Your task to perform on an android device: turn off location history Image 0: 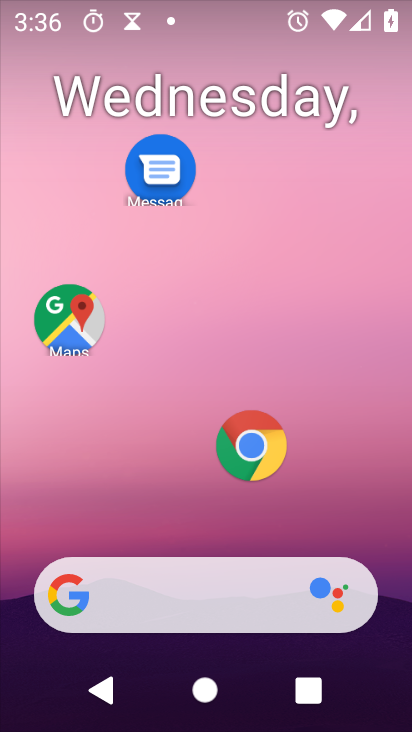
Step 0: drag from (15, 596) to (258, 93)
Your task to perform on an android device: turn off location history Image 1: 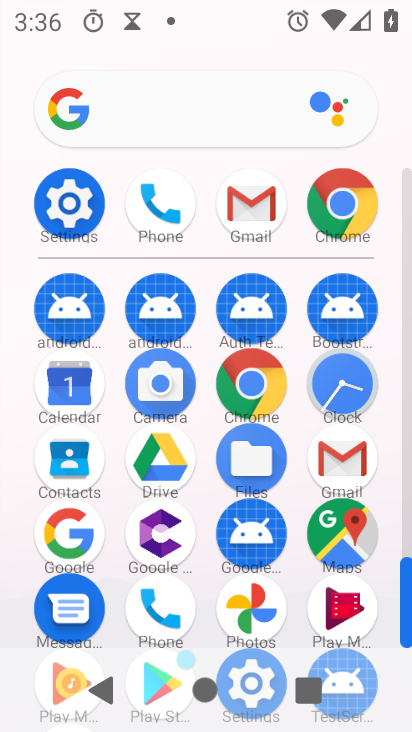
Step 1: drag from (73, 562) to (235, 216)
Your task to perform on an android device: turn off location history Image 2: 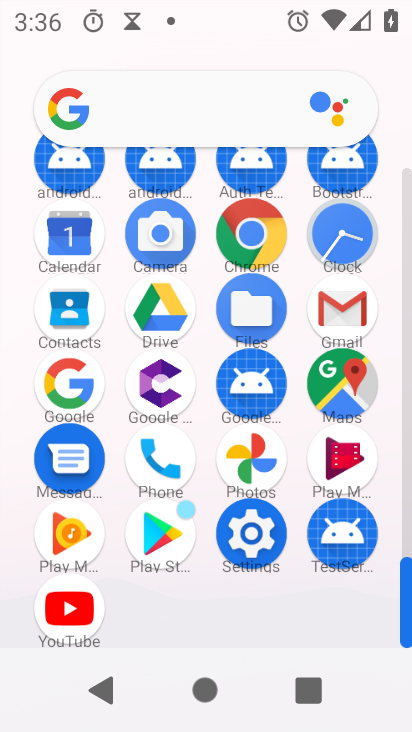
Step 2: click (256, 548)
Your task to perform on an android device: turn off location history Image 3: 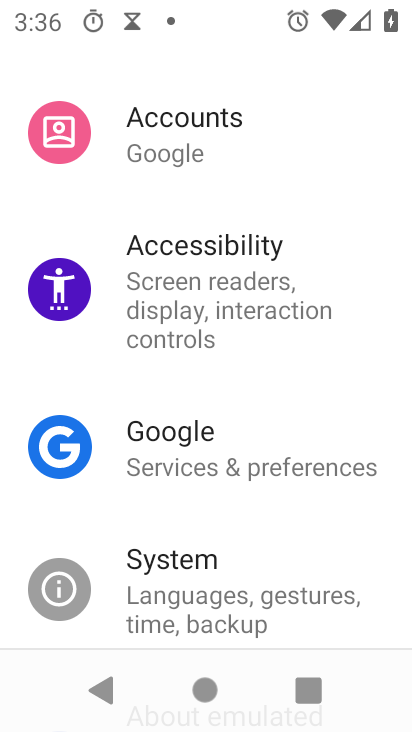
Step 3: drag from (236, 162) to (208, 490)
Your task to perform on an android device: turn off location history Image 4: 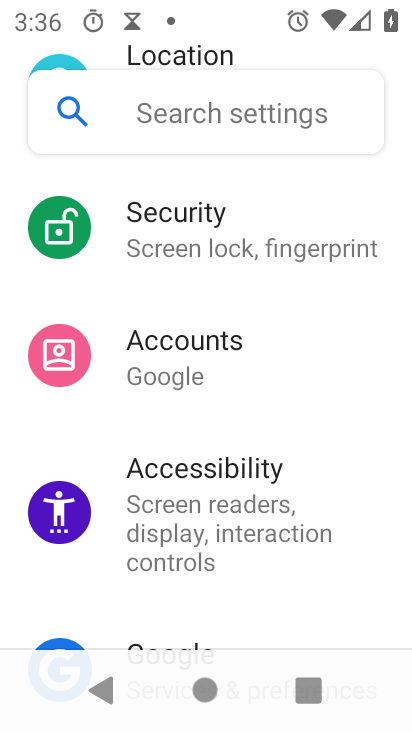
Step 4: drag from (181, 168) to (168, 452)
Your task to perform on an android device: turn off location history Image 5: 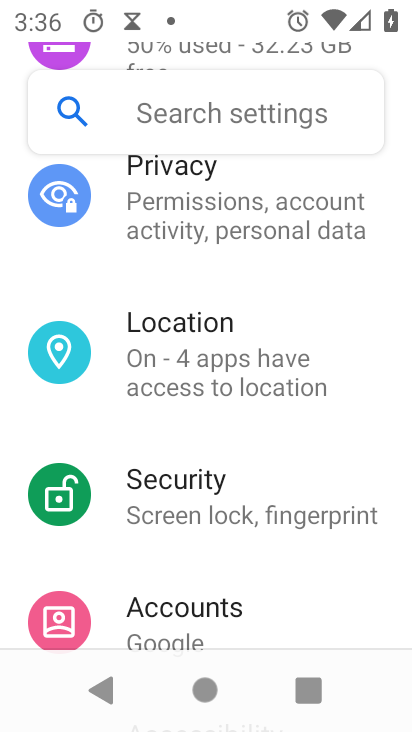
Step 5: click (156, 352)
Your task to perform on an android device: turn off location history Image 6: 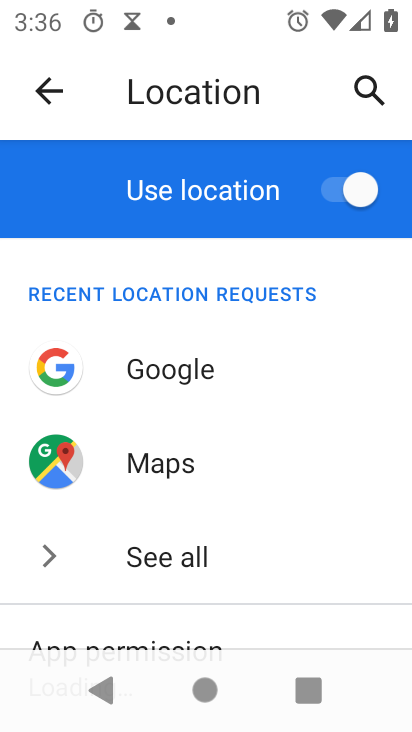
Step 6: drag from (19, 534) to (258, 85)
Your task to perform on an android device: turn off location history Image 7: 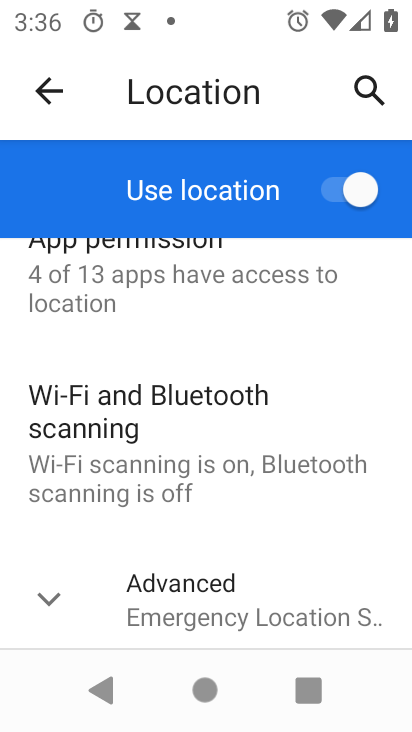
Step 7: click (184, 600)
Your task to perform on an android device: turn off location history Image 8: 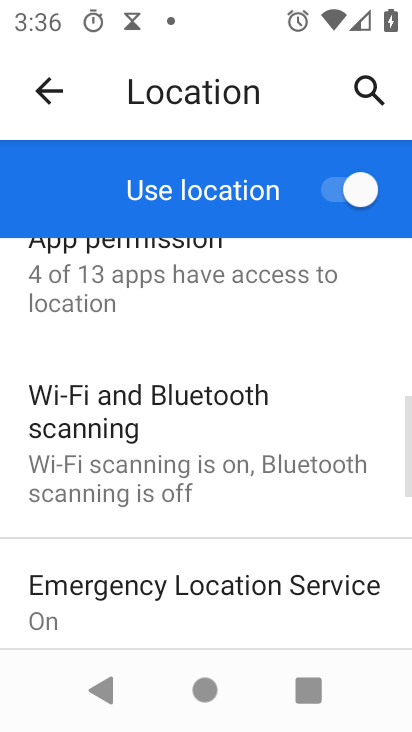
Step 8: drag from (21, 451) to (220, 56)
Your task to perform on an android device: turn off location history Image 9: 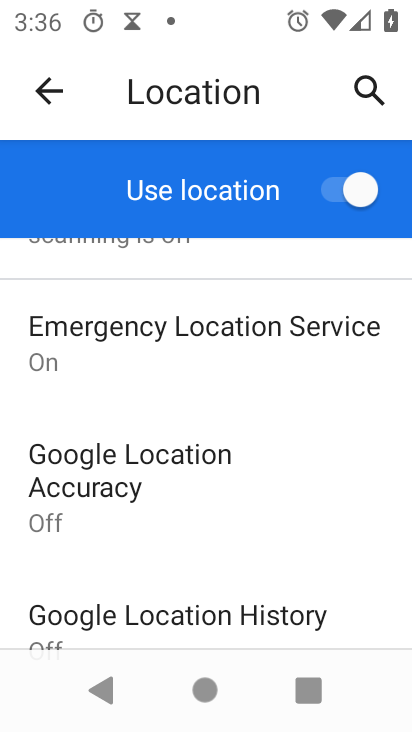
Step 9: drag from (45, 517) to (173, 210)
Your task to perform on an android device: turn off location history Image 10: 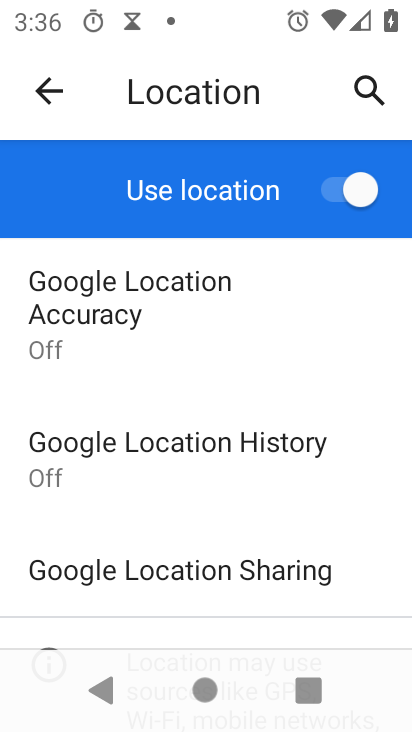
Step 10: click (162, 442)
Your task to perform on an android device: turn off location history Image 11: 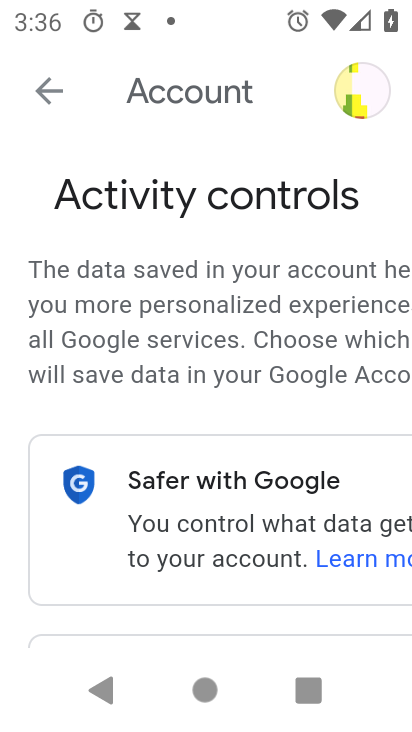
Step 11: task complete